Your task to perform on an android device: When is my next appointment? Image 0: 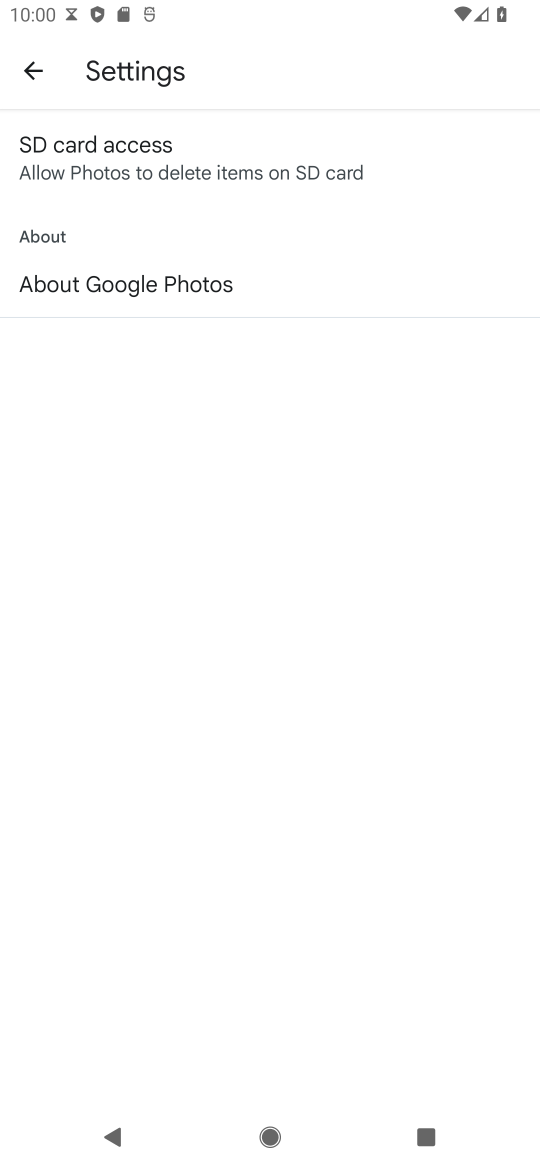
Step 0: press home button
Your task to perform on an android device: When is my next appointment? Image 1: 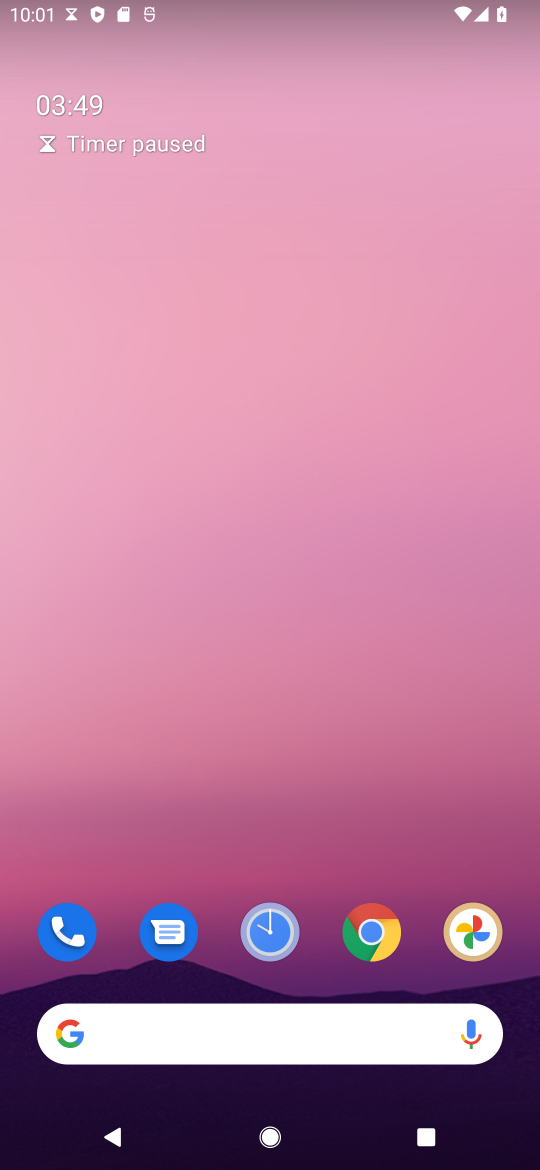
Step 1: drag from (255, 1028) to (314, 396)
Your task to perform on an android device: When is my next appointment? Image 2: 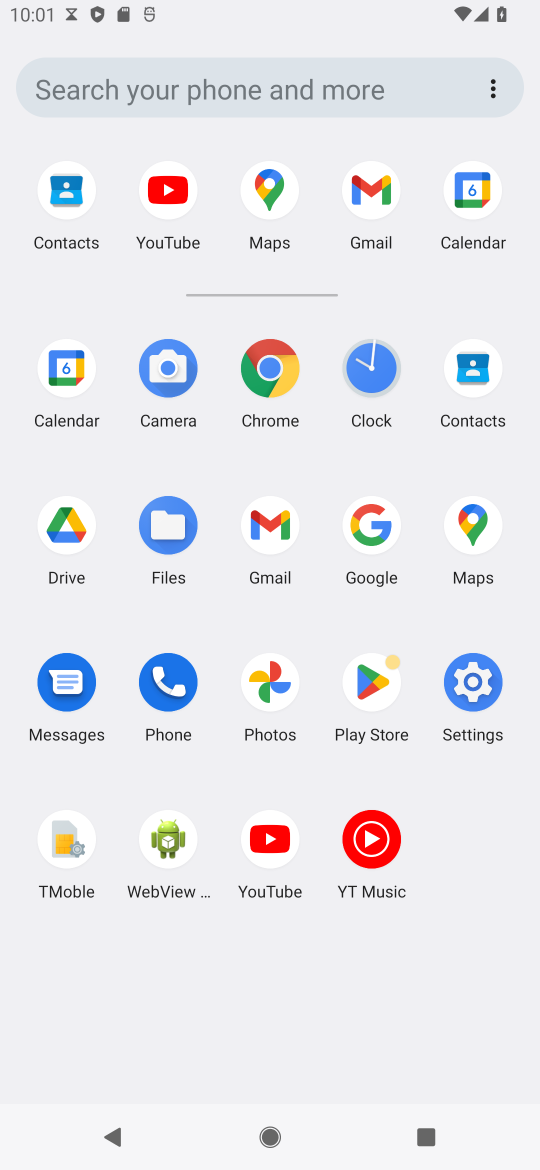
Step 2: click (472, 190)
Your task to perform on an android device: When is my next appointment? Image 3: 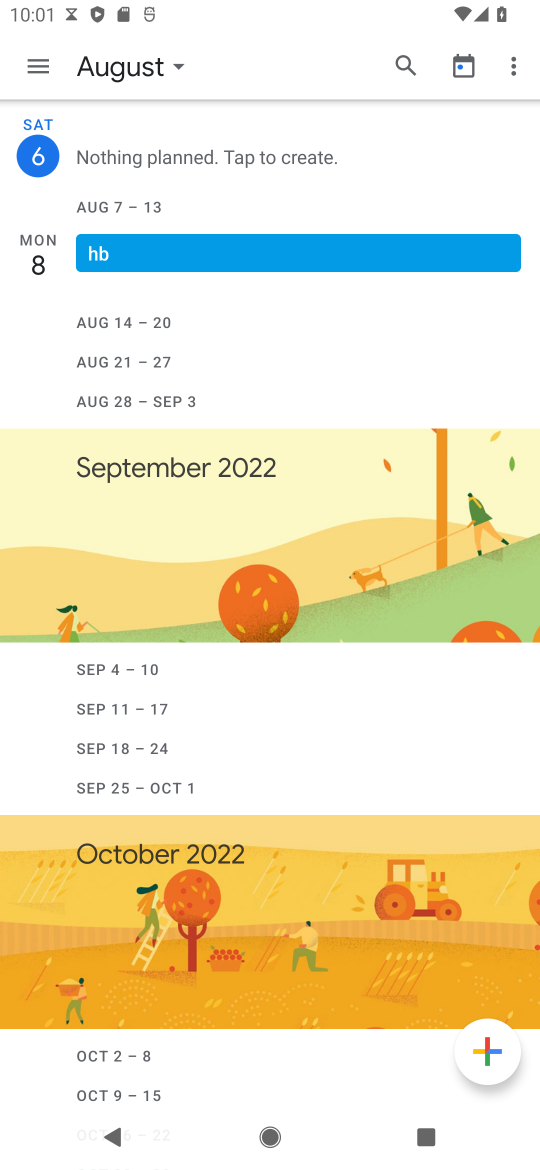
Step 3: click (463, 76)
Your task to perform on an android device: When is my next appointment? Image 4: 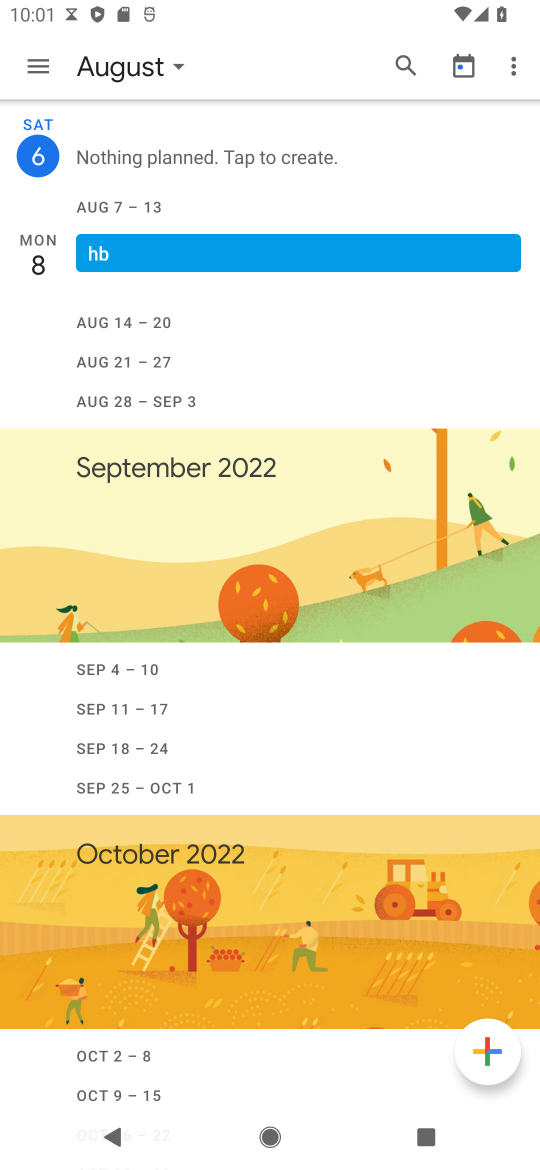
Step 4: click (175, 63)
Your task to perform on an android device: When is my next appointment? Image 5: 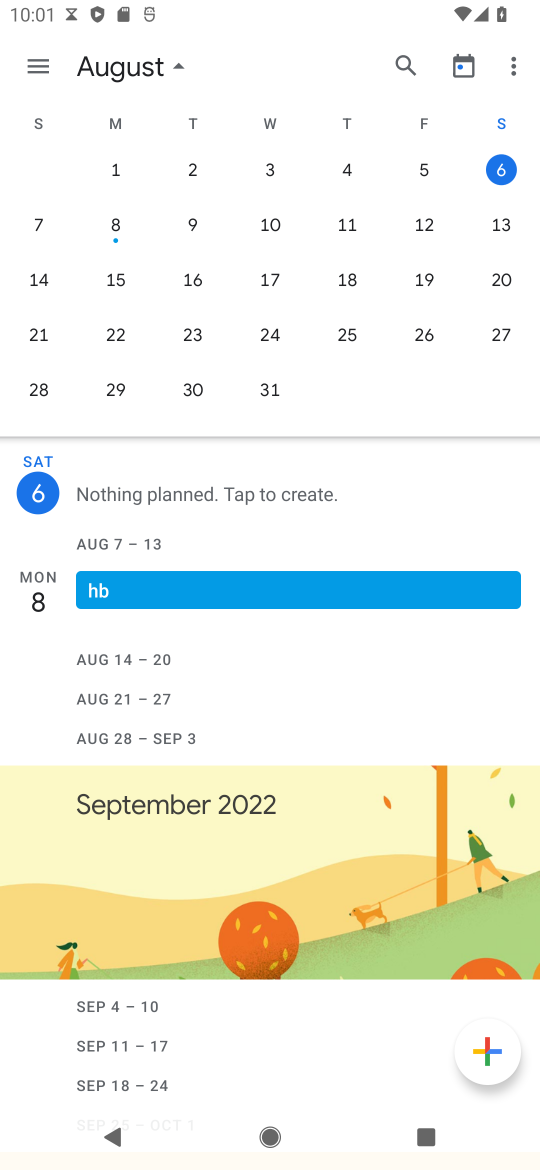
Step 5: click (119, 230)
Your task to perform on an android device: When is my next appointment? Image 6: 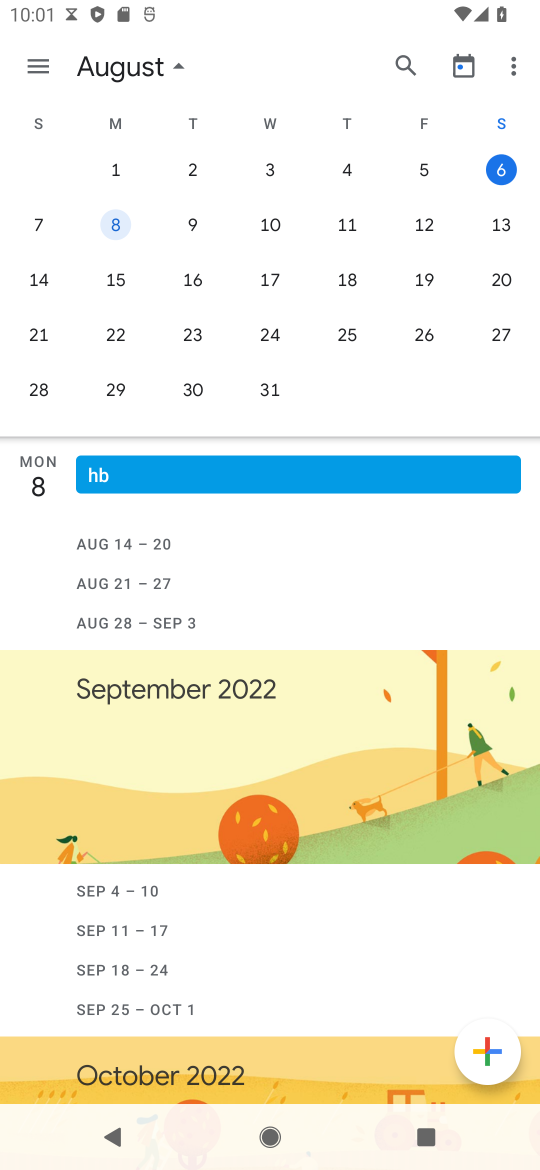
Step 6: click (29, 58)
Your task to perform on an android device: When is my next appointment? Image 7: 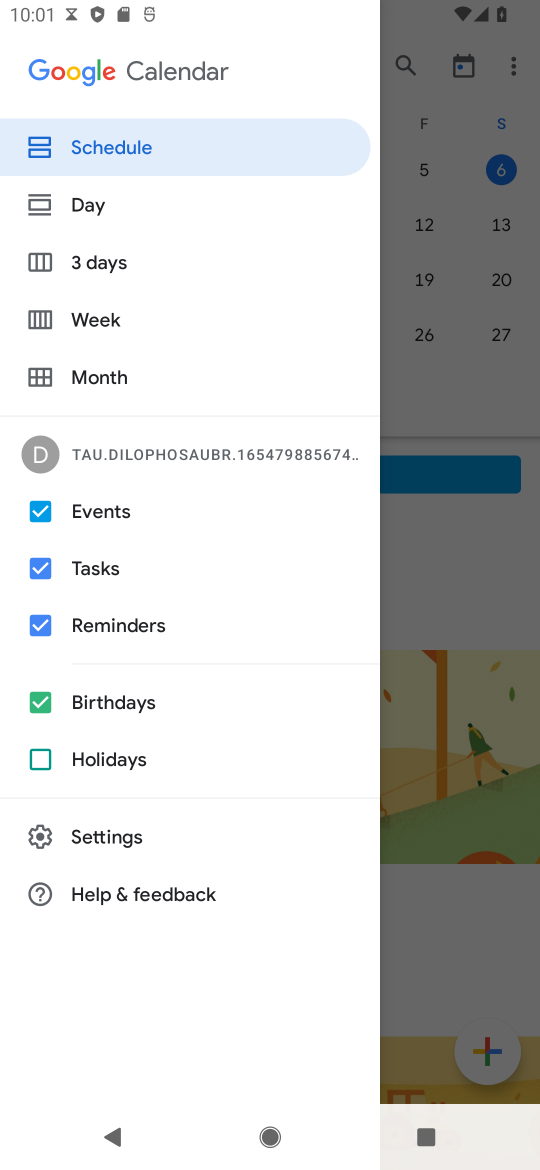
Step 7: click (115, 317)
Your task to perform on an android device: When is my next appointment? Image 8: 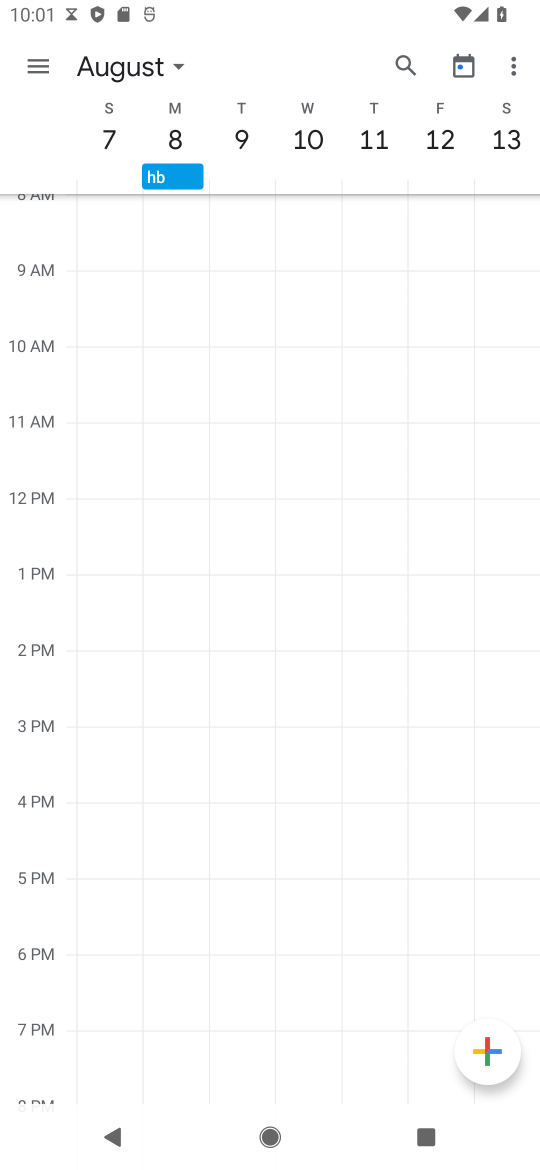
Step 8: task complete